Your task to perform on an android device: change notification settings in the gmail app Image 0: 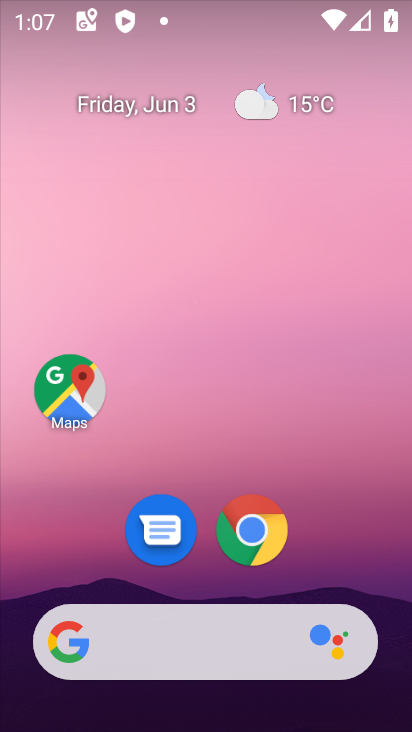
Step 0: drag from (375, 576) to (334, 105)
Your task to perform on an android device: change notification settings in the gmail app Image 1: 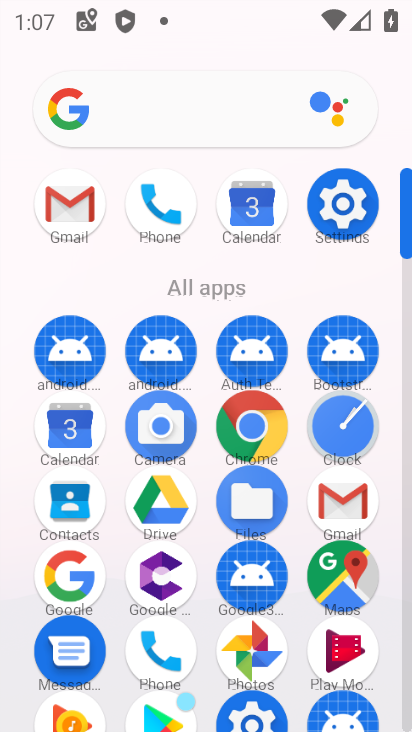
Step 1: click (71, 199)
Your task to perform on an android device: change notification settings in the gmail app Image 2: 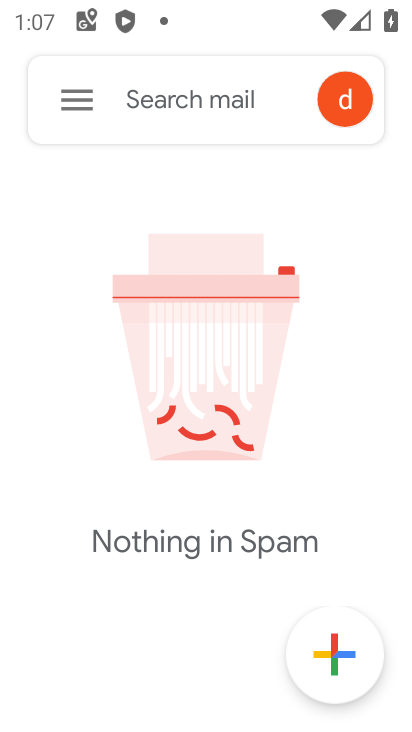
Step 2: click (76, 103)
Your task to perform on an android device: change notification settings in the gmail app Image 3: 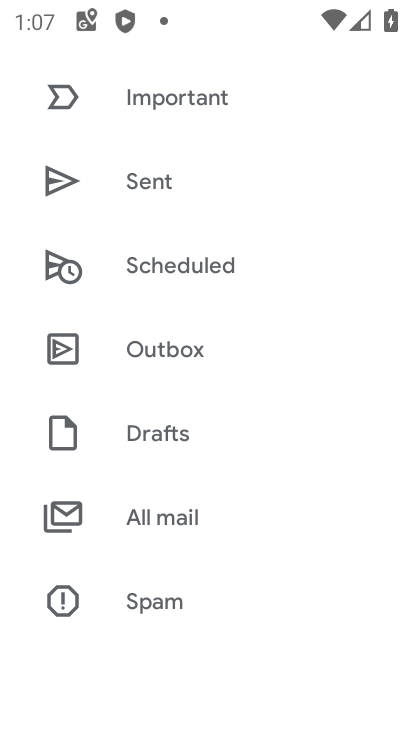
Step 3: drag from (275, 638) to (328, 16)
Your task to perform on an android device: change notification settings in the gmail app Image 4: 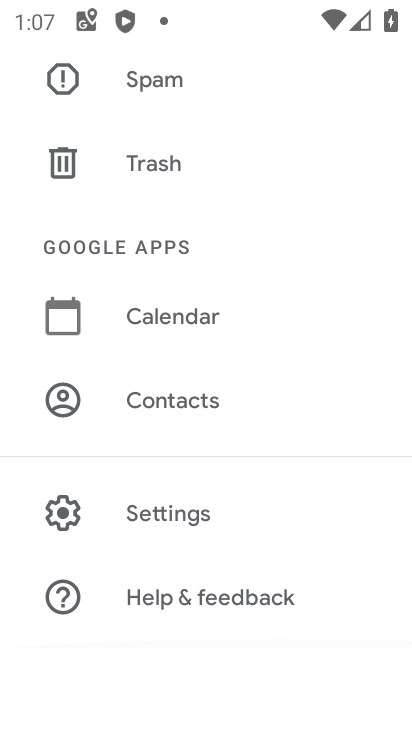
Step 4: click (196, 507)
Your task to perform on an android device: change notification settings in the gmail app Image 5: 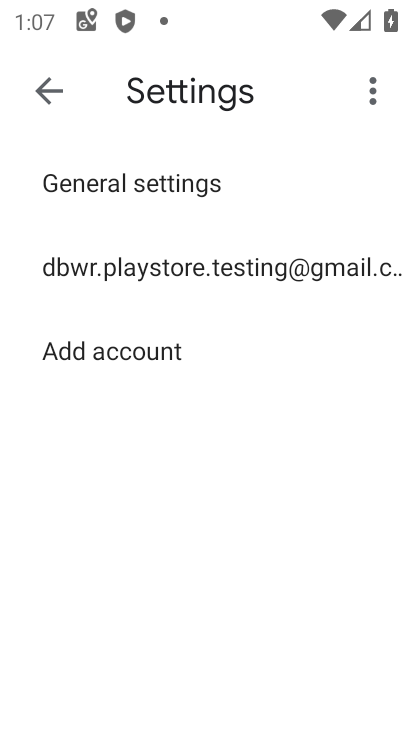
Step 5: click (145, 274)
Your task to perform on an android device: change notification settings in the gmail app Image 6: 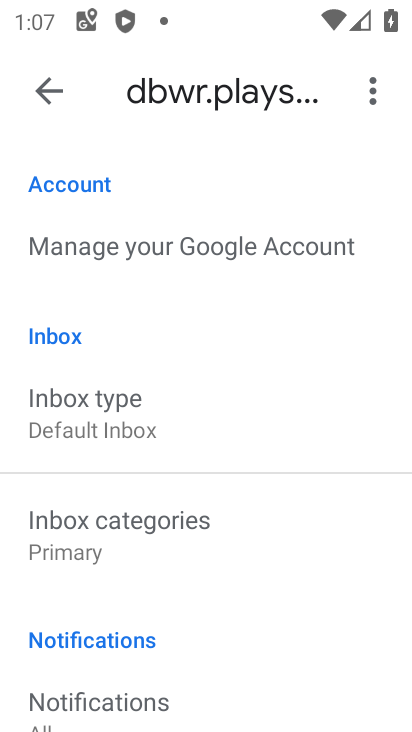
Step 6: drag from (326, 465) to (322, 101)
Your task to perform on an android device: change notification settings in the gmail app Image 7: 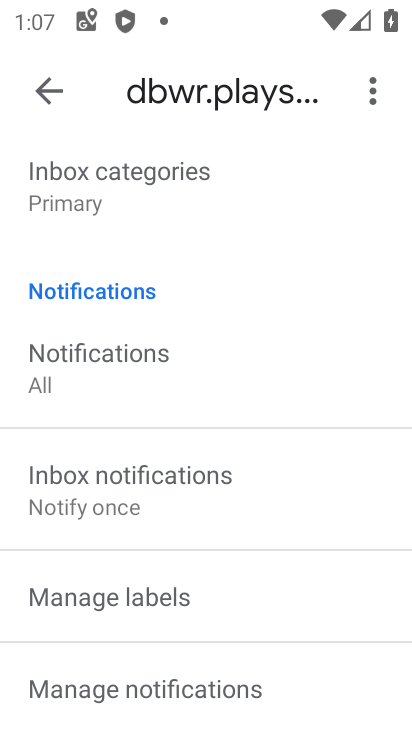
Step 7: click (201, 696)
Your task to perform on an android device: change notification settings in the gmail app Image 8: 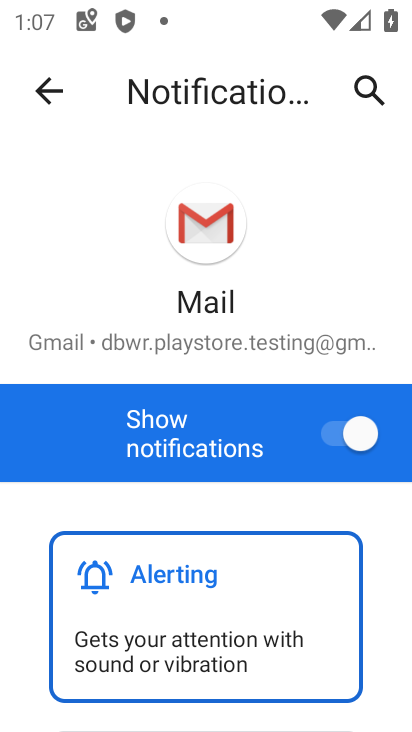
Step 8: click (340, 440)
Your task to perform on an android device: change notification settings in the gmail app Image 9: 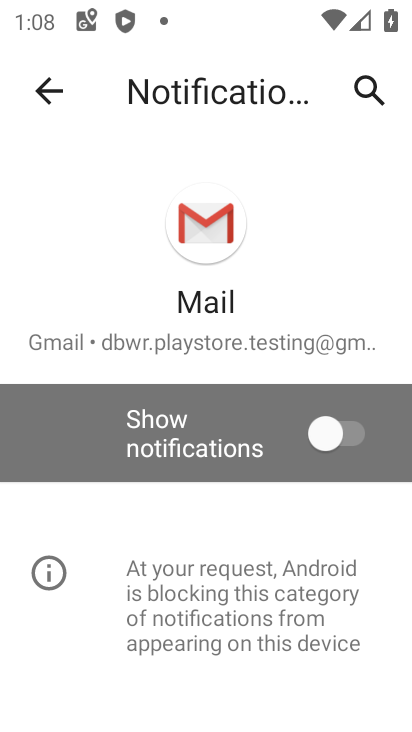
Step 9: task complete